Your task to perform on an android device: Open Chrome and go to the settings page Image 0: 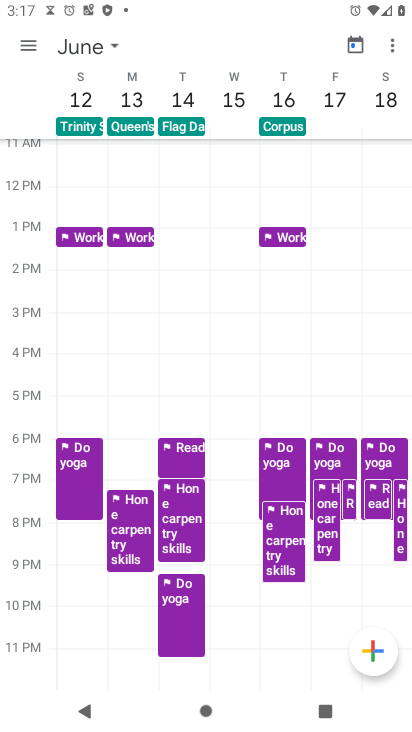
Step 0: press back button
Your task to perform on an android device: Open Chrome and go to the settings page Image 1: 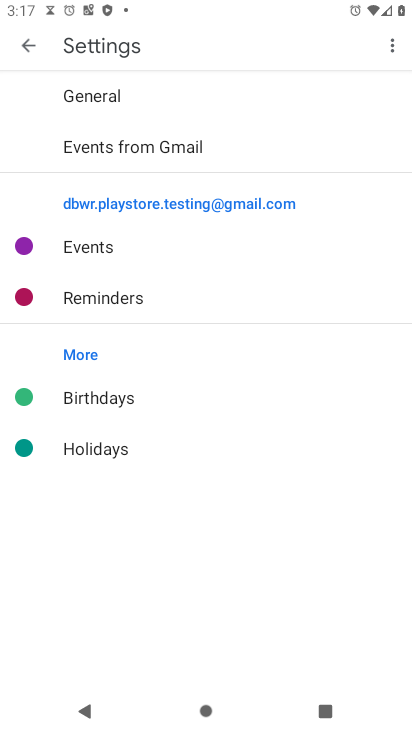
Step 1: press back button
Your task to perform on an android device: Open Chrome and go to the settings page Image 2: 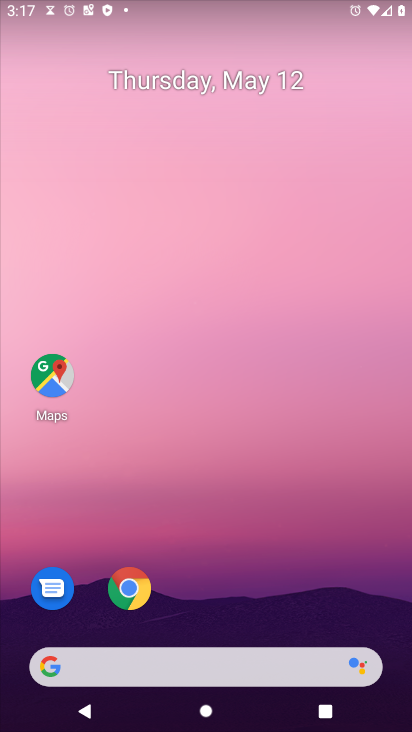
Step 2: drag from (289, 604) to (255, 4)
Your task to perform on an android device: Open Chrome and go to the settings page Image 3: 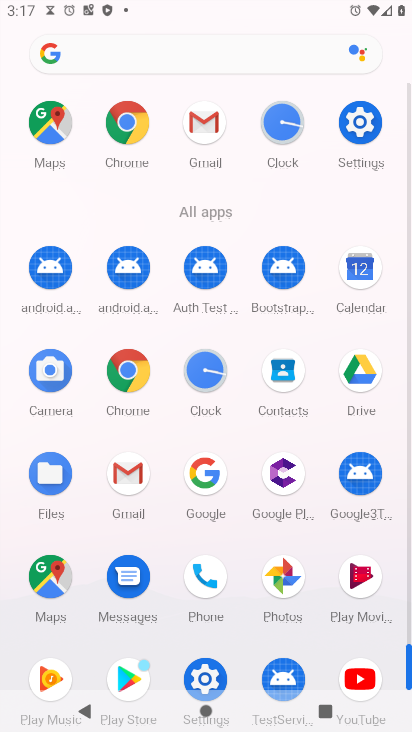
Step 3: drag from (8, 614) to (20, 325)
Your task to perform on an android device: Open Chrome and go to the settings page Image 4: 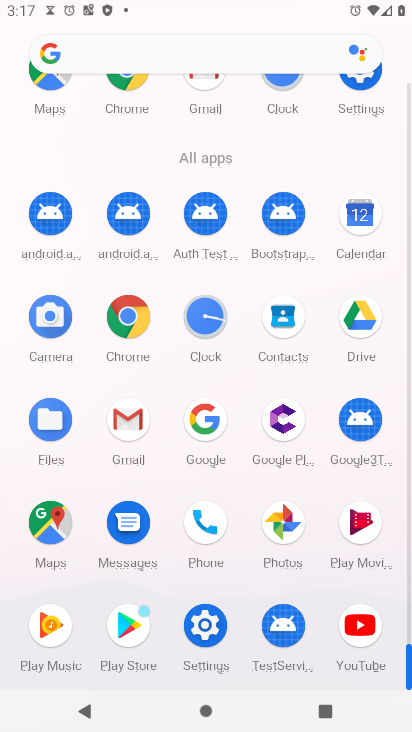
Step 4: click (124, 306)
Your task to perform on an android device: Open Chrome and go to the settings page Image 5: 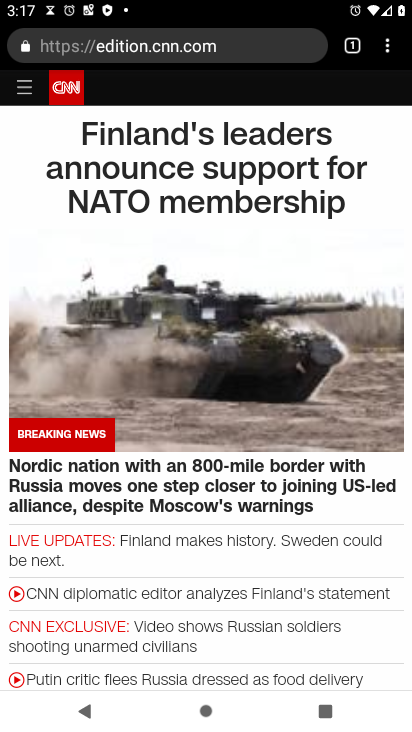
Step 5: task complete